Your task to perform on an android device: Open the calendar and show me this week's events? Image 0: 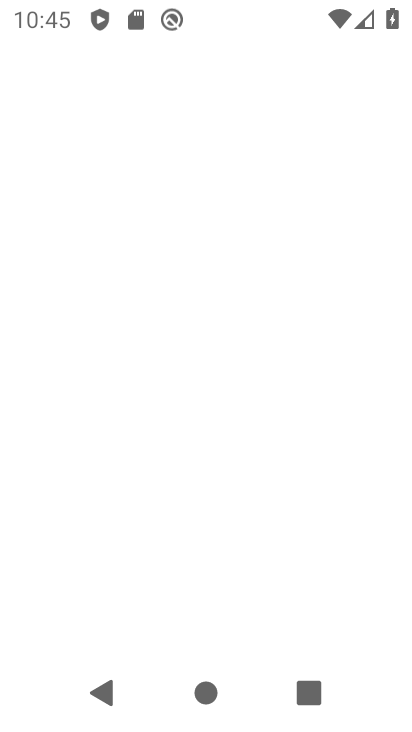
Step 0: press home button
Your task to perform on an android device: Open the calendar and show me this week's events? Image 1: 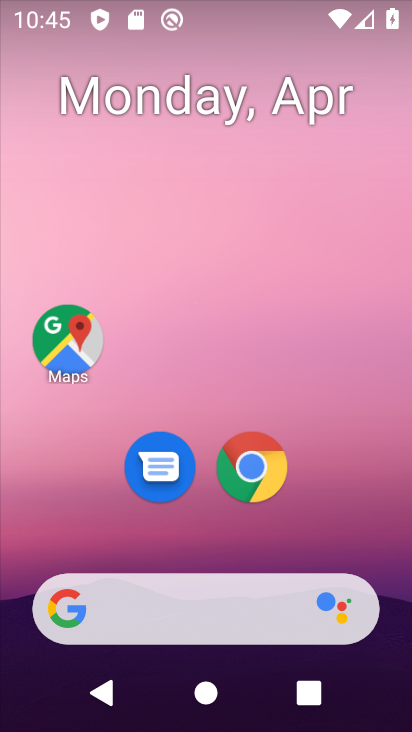
Step 1: drag from (320, 405) to (304, 116)
Your task to perform on an android device: Open the calendar and show me this week's events? Image 2: 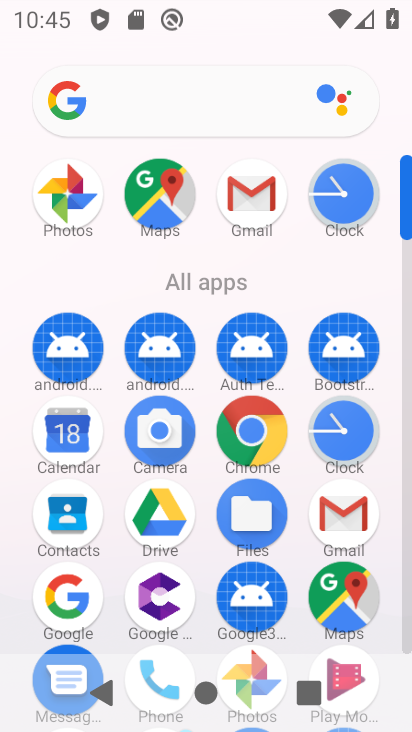
Step 2: click (79, 456)
Your task to perform on an android device: Open the calendar and show me this week's events? Image 3: 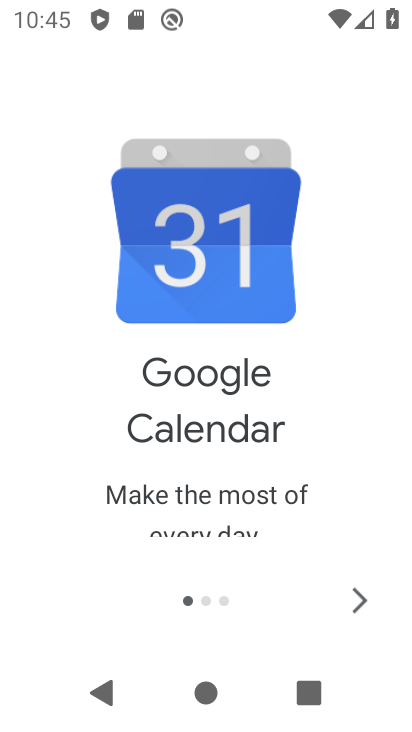
Step 3: click (349, 604)
Your task to perform on an android device: Open the calendar and show me this week's events? Image 4: 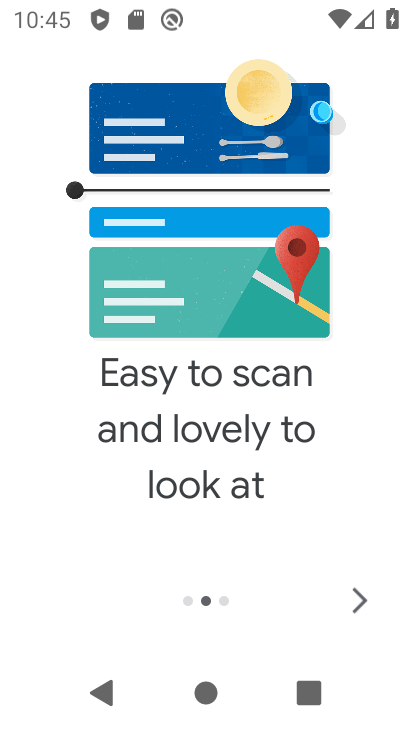
Step 4: click (349, 604)
Your task to perform on an android device: Open the calendar and show me this week's events? Image 5: 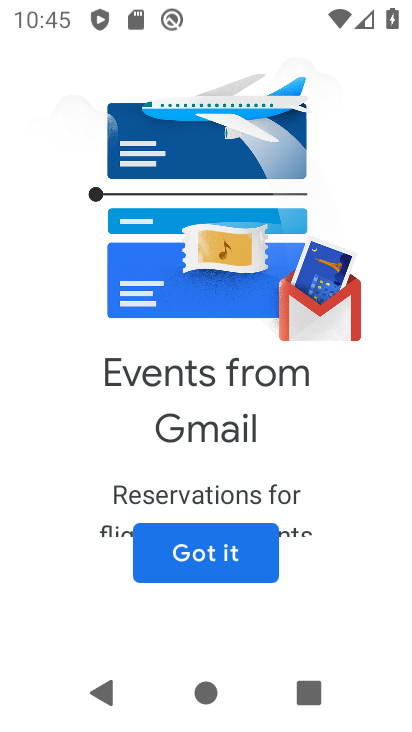
Step 5: click (349, 604)
Your task to perform on an android device: Open the calendar and show me this week's events? Image 6: 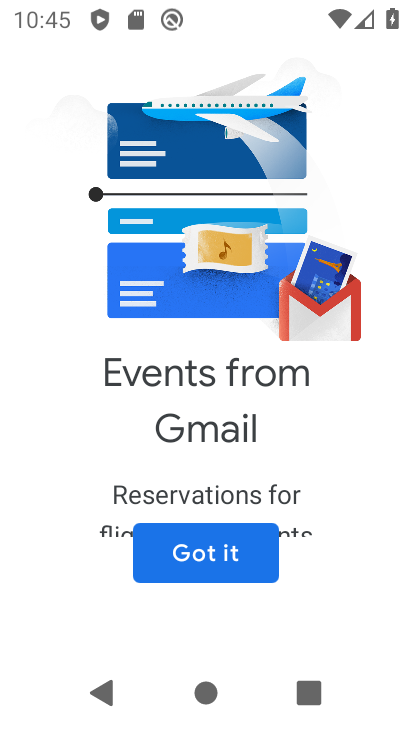
Step 6: click (223, 561)
Your task to perform on an android device: Open the calendar and show me this week's events? Image 7: 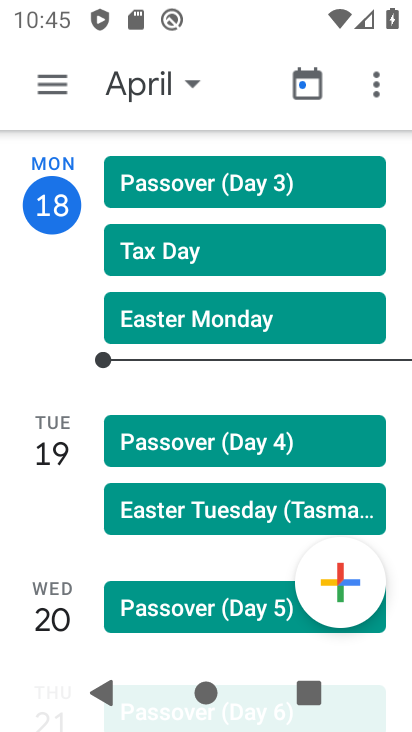
Step 7: click (125, 99)
Your task to perform on an android device: Open the calendar and show me this week's events? Image 8: 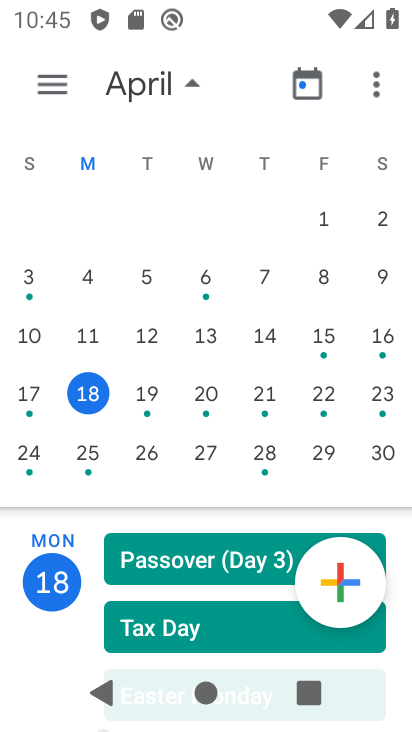
Step 8: click (150, 390)
Your task to perform on an android device: Open the calendar and show me this week's events? Image 9: 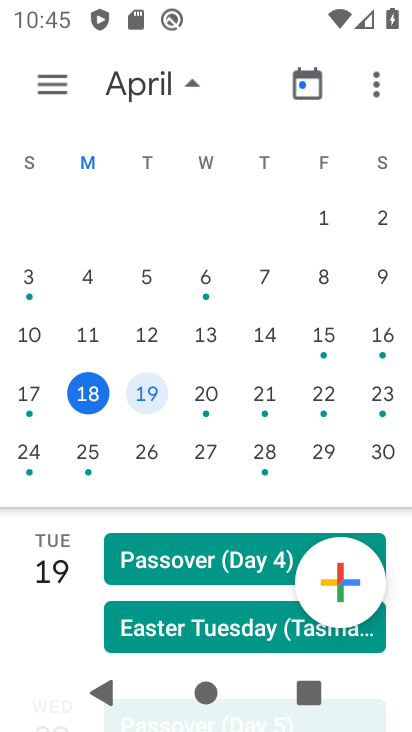
Step 9: click (186, 396)
Your task to perform on an android device: Open the calendar and show me this week's events? Image 10: 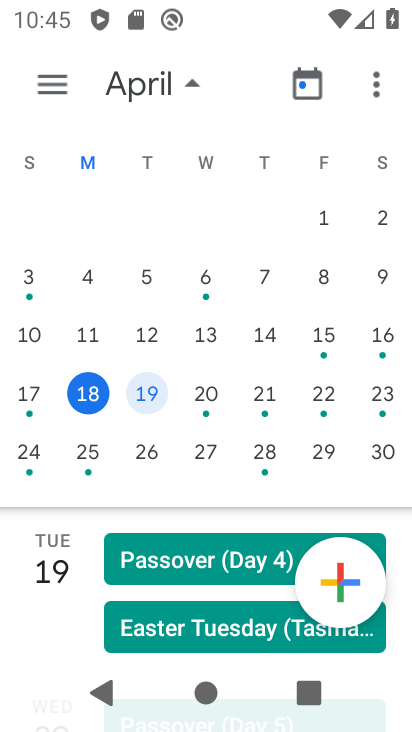
Step 10: click (259, 399)
Your task to perform on an android device: Open the calendar and show me this week's events? Image 11: 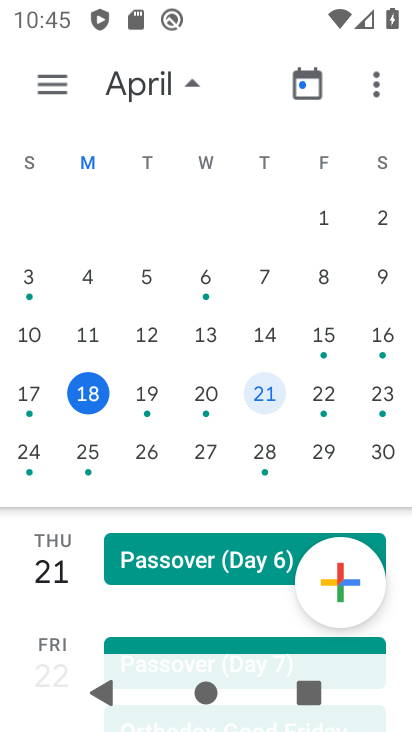
Step 11: click (314, 403)
Your task to perform on an android device: Open the calendar and show me this week's events? Image 12: 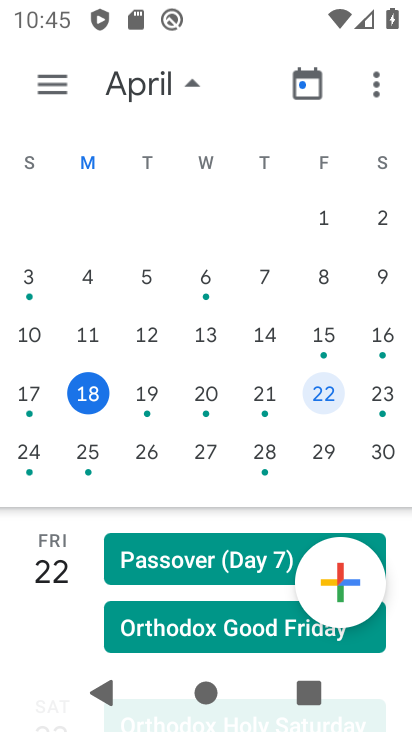
Step 12: click (385, 406)
Your task to perform on an android device: Open the calendar and show me this week's events? Image 13: 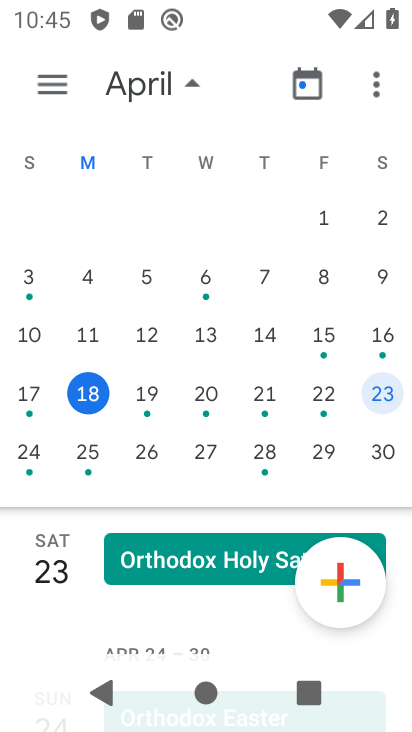
Step 13: task complete